Your task to perform on an android device: toggle airplane mode Image 0: 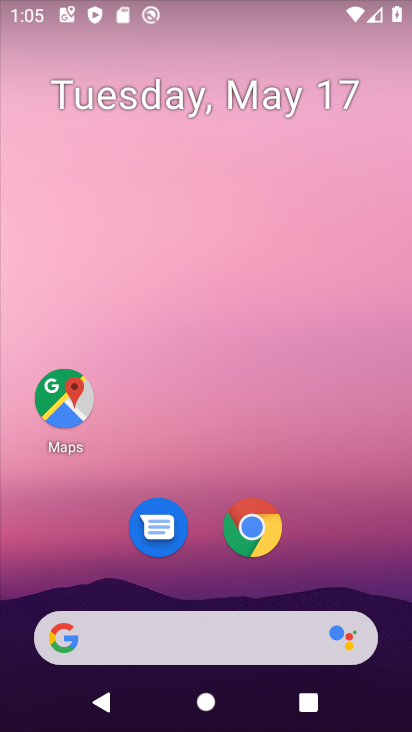
Step 0: drag from (63, 615) to (140, 265)
Your task to perform on an android device: toggle airplane mode Image 1: 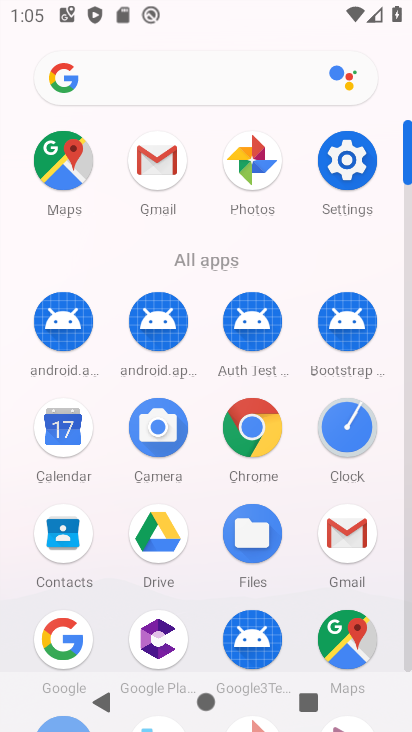
Step 1: click (348, 155)
Your task to perform on an android device: toggle airplane mode Image 2: 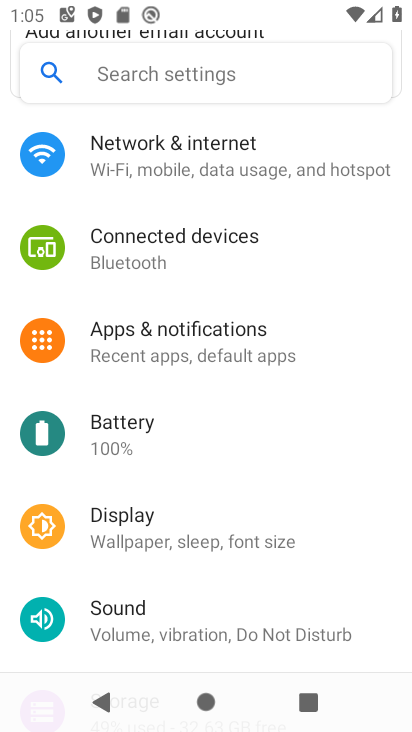
Step 2: click (256, 174)
Your task to perform on an android device: toggle airplane mode Image 3: 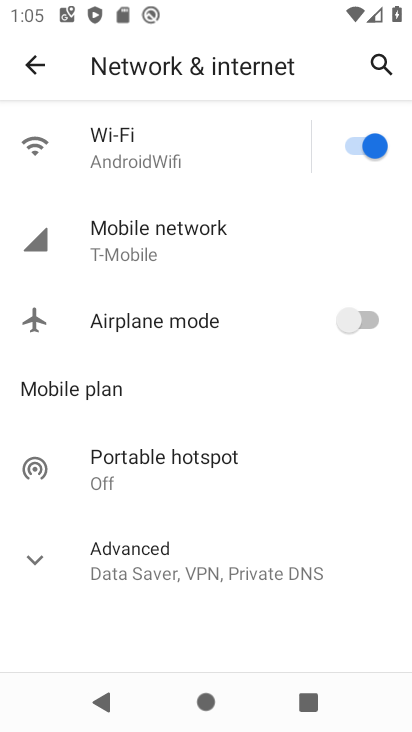
Step 3: click (375, 315)
Your task to perform on an android device: toggle airplane mode Image 4: 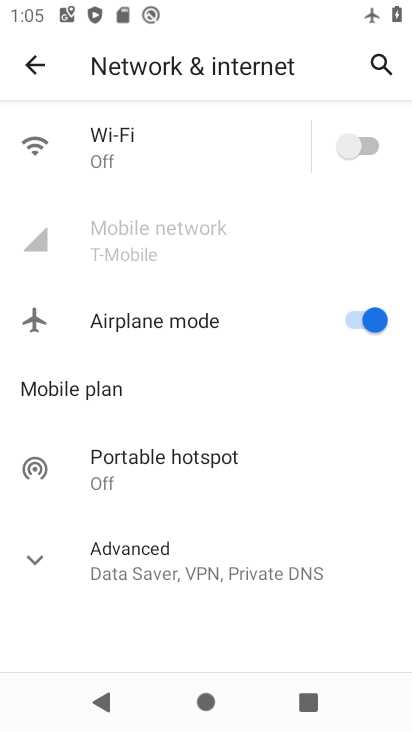
Step 4: task complete